Your task to perform on an android device: Open Chrome and go to the settings page Image 0: 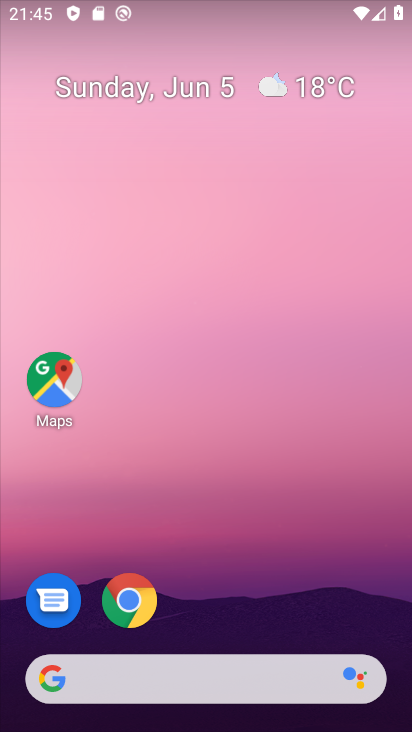
Step 0: drag from (263, 575) to (225, 148)
Your task to perform on an android device: Open Chrome and go to the settings page Image 1: 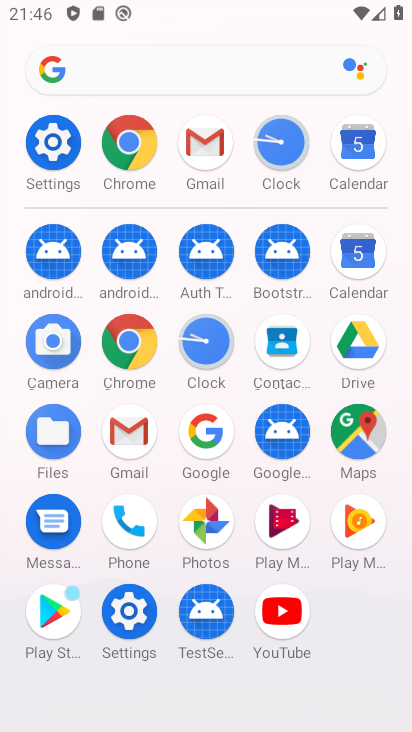
Step 1: click (131, 346)
Your task to perform on an android device: Open Chrome and go to the settings page Image 2: 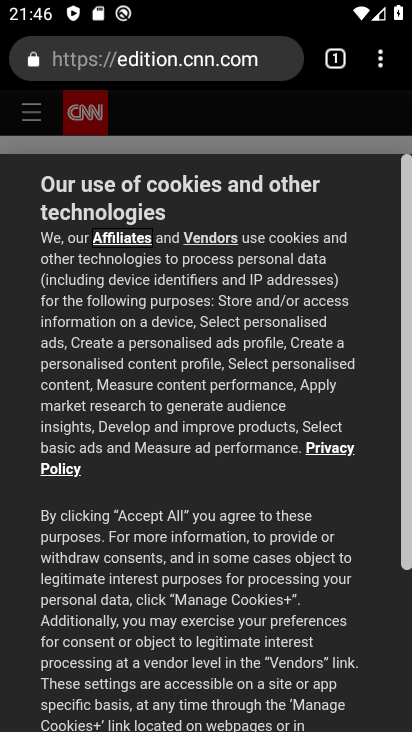
Step 2: click (384, 61)
Your task to perform on an android device: Open Chrome and go to the settings page Image 3: 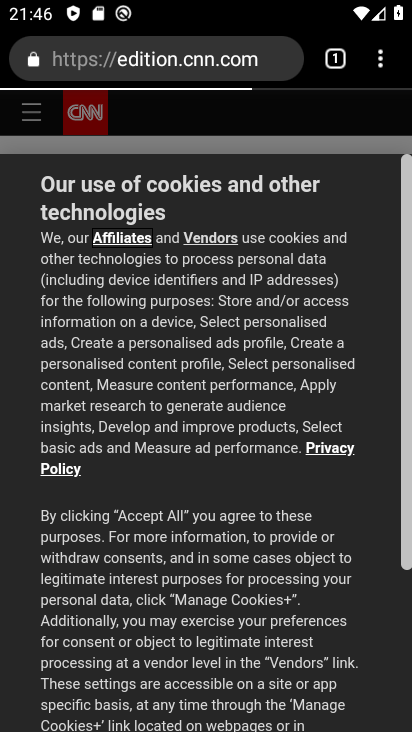
Step 3: task complete